Your task to perform on an android device: Search for vegetarian restaurants on Maps Image 0: 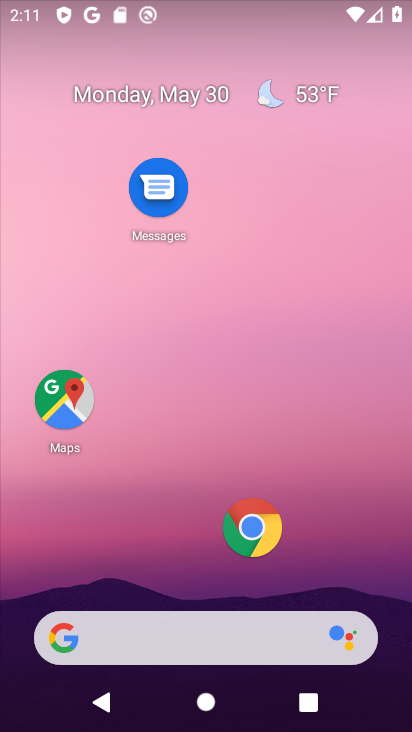
Step 0: drag from (158, 574) to (320, 80)
Your task to perform on an android device: Search for vegetarian restaurants on Maps Image 1: 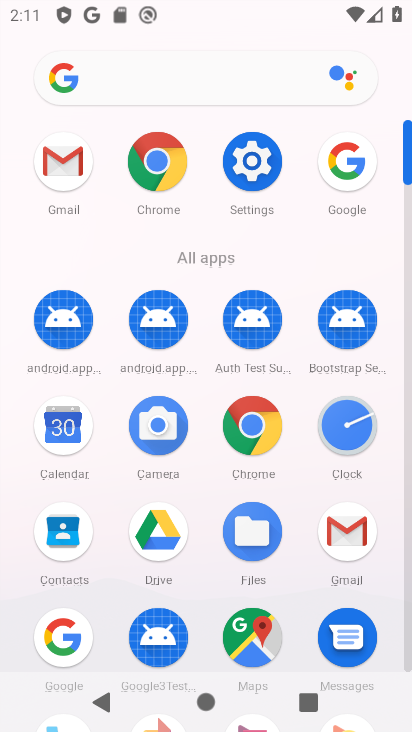
Step 1: click (241, 640)
Your task to perform on an android device: Search for vegetarian restaurants on Maps Image 2: 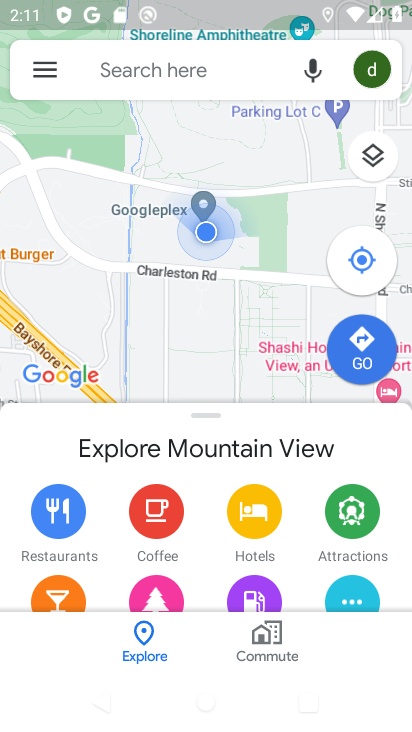
Step 2: click (195, 80)
Your task to perform on an android device: Search for vegetarian restaurants on Maps Image 3: 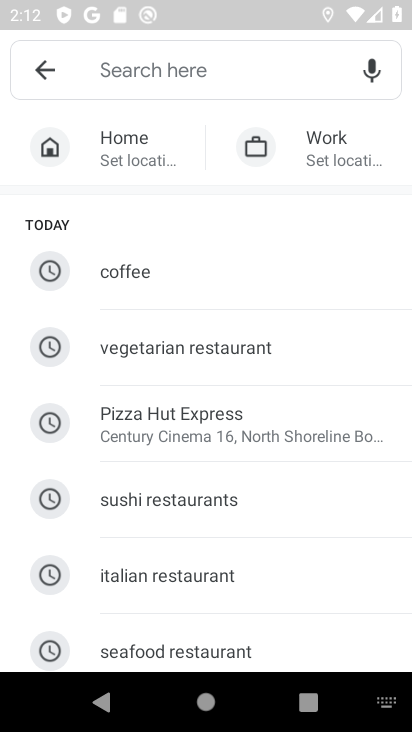
Step 3: click (310, 364)
Your task to perform on an android device: Search for vegetarian restaurants on Maps Image 4: 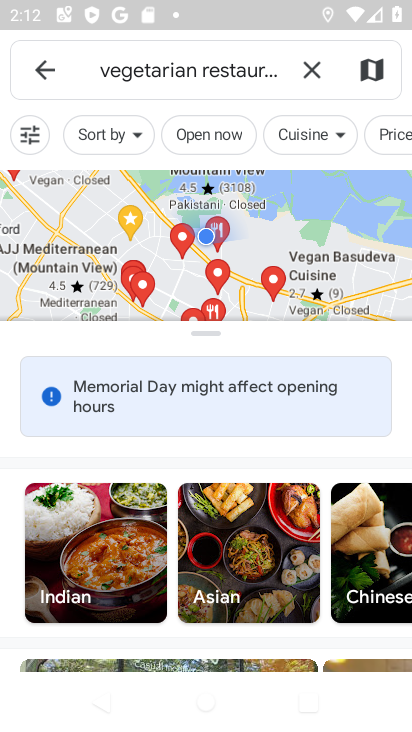
Step 4: task complete